Your task to perform on an android device: clear all cookies in the chrome app Image 0: 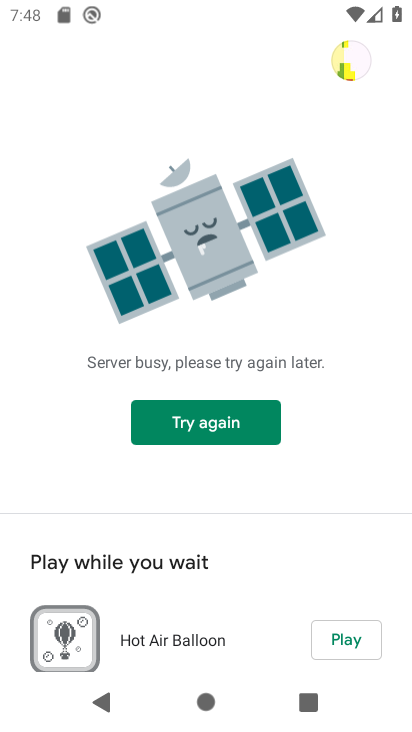
Step 0: press home button
Your task to perform on an android device: clear all cookies in the chrome app Image 1: 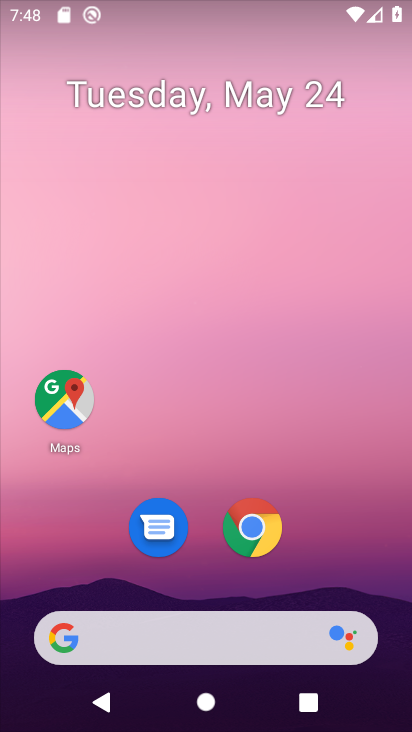
Step 1: click (256, 525)
Your task to perform on an android device: clear all cookies in the chrome app Image 2: 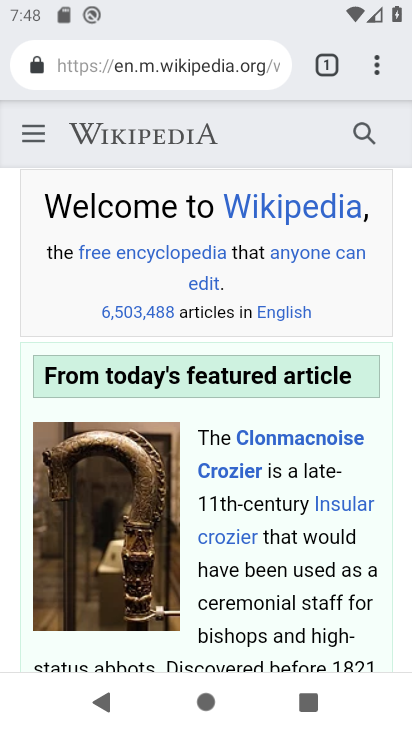
Step 2: click (386, 65)
Your task to perform on an android device: clear all cookies in the chrome app Image 3: 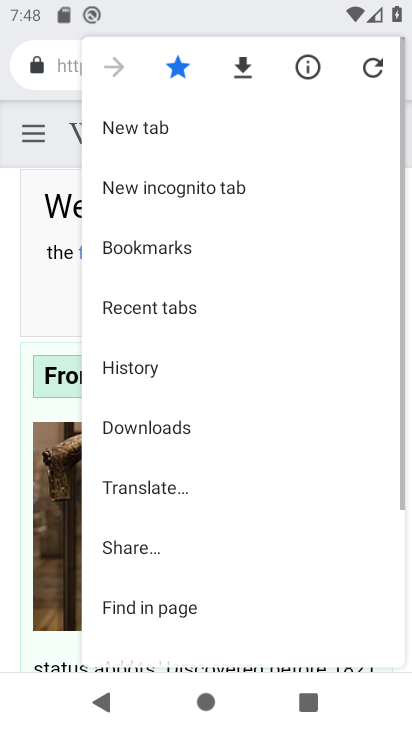
Step 3: drag from (265, 536) to (282, 230)
Your task to perform on an android device: clear all cookies in the chrome app Image 4: 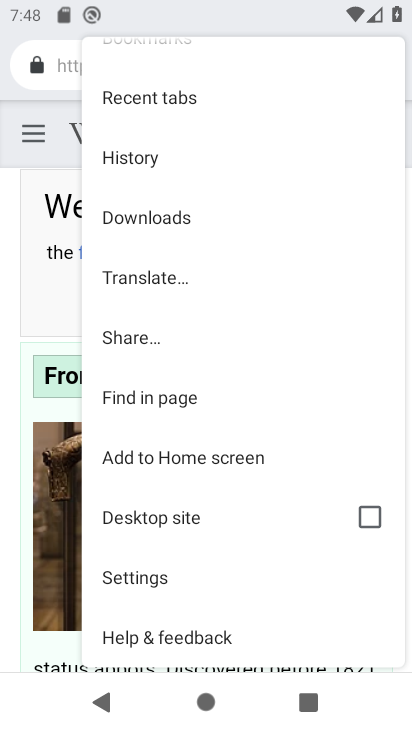
Step 4: click (140, 588)
Your task to perform on an android device: clear all cookies in the chrome app Image 5: 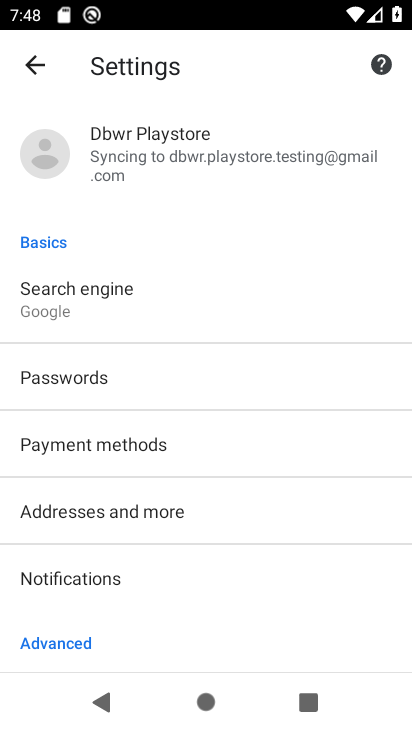
Step 5: drag from (196, 570) to (228, 260)
Your task to perform on an android device: clear all cookies in the chrome app Image 6: 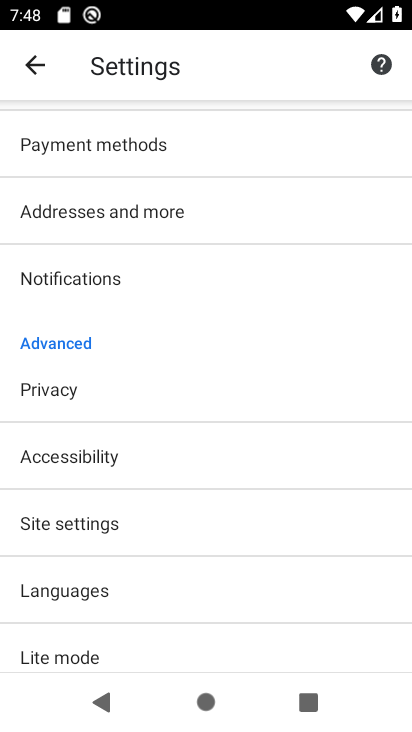
Step 6: drag from (90, 518) to (222, 709)
Your task to perform on an android device: clear all cookies in the chrome app Image 7: 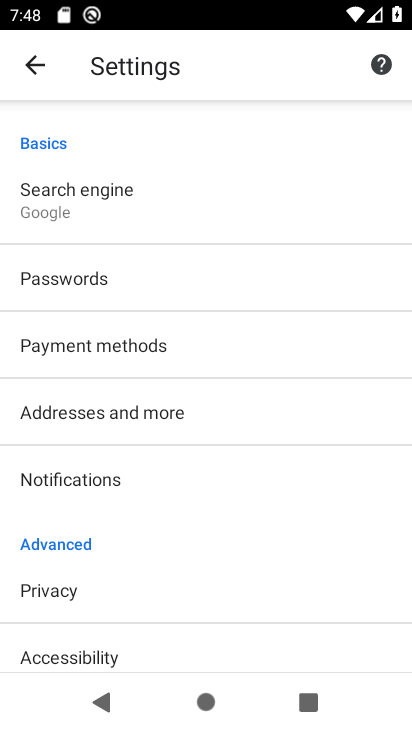
Step 7: press back button
Your task to perform on an android device: clear all cookies in the chrome app Image 8: 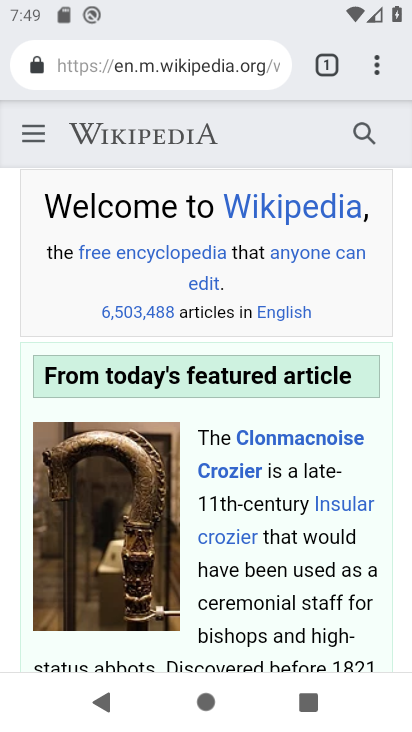
Step 8: click (379, 64)
Your task to perform on an android device: clear all cookies in the chrome app Image 9: 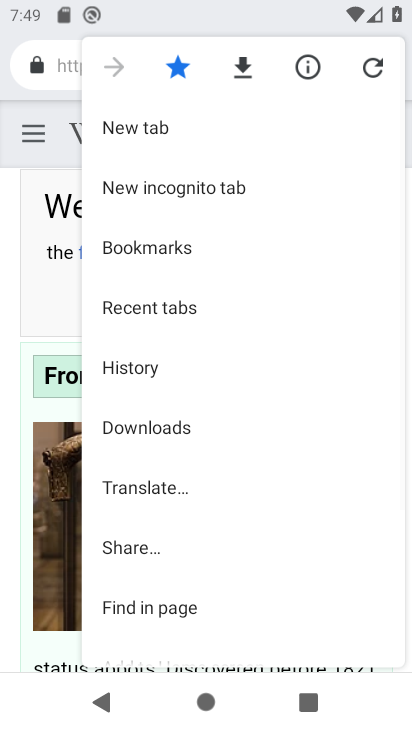
Step 9: click (172, 374)
Your task to perform on an android device: clear all cookies in the chrome app Image 10: 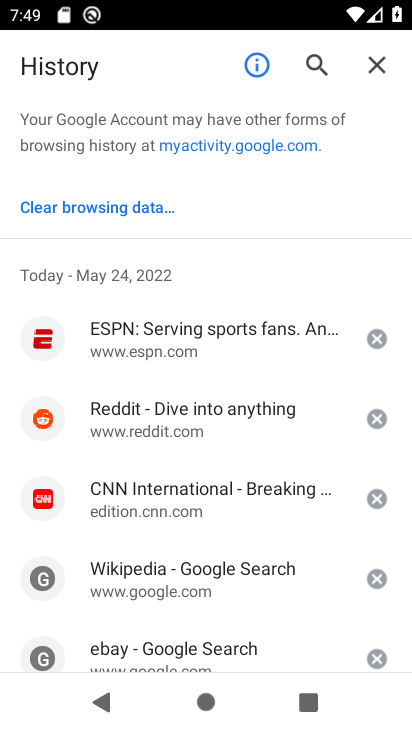
Step 10: click (150, 209)
Your task to perform on an android device: clear all cookies in the chrome app Image 11: 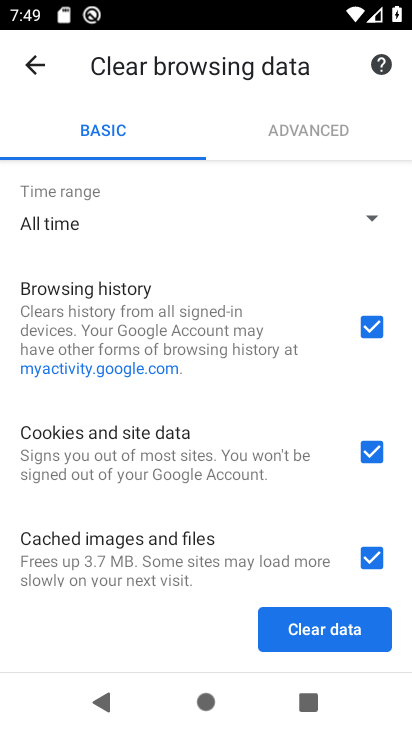
Step 11: click (356, 634)
Your task to perform on an android device: clear all cookies in the chrome app Image 12: 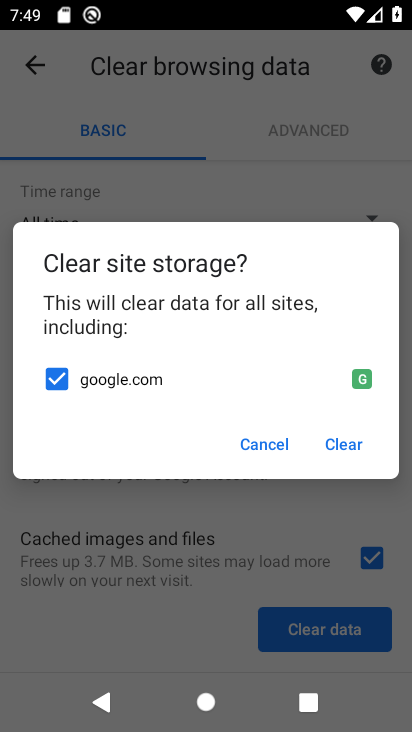
Step 12: click (336, 449)
Your task to perform on an android device: clear all cookies in the chrome app Image 13: 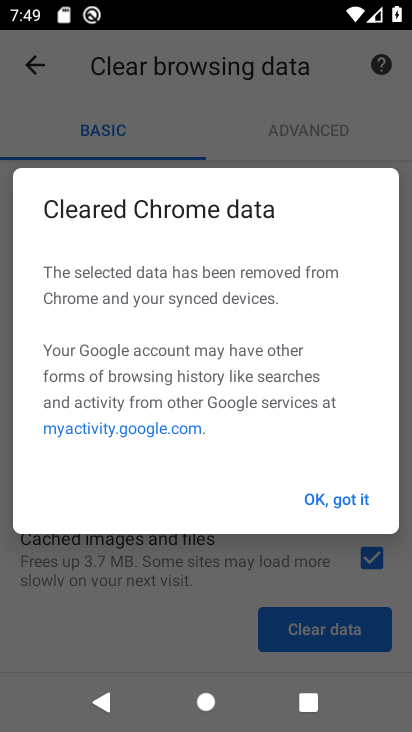
Step 13: task complete